Your task to perform on an android device: toggle sleep mode Image 0: 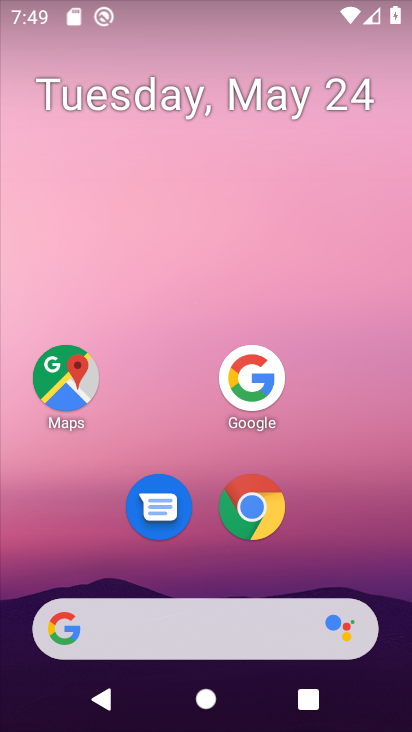
Step 0: press home button
Your task to perform on an android device: toggle sleep mode Image 1: 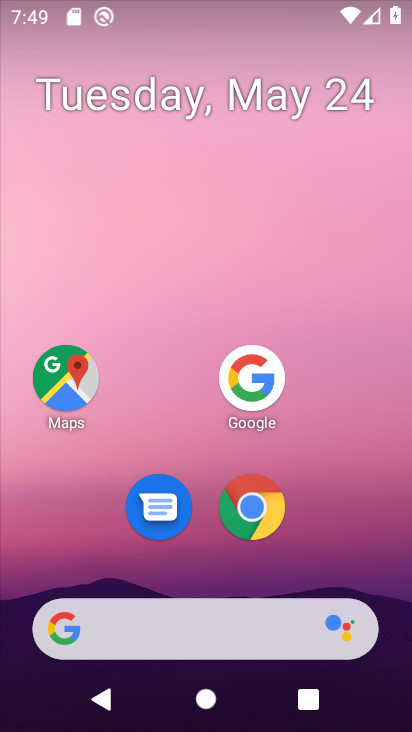
Step 1: drag from (159, 629) to (345, 113)
Your task to perform on an android device: toggle sleep mode Image 2: 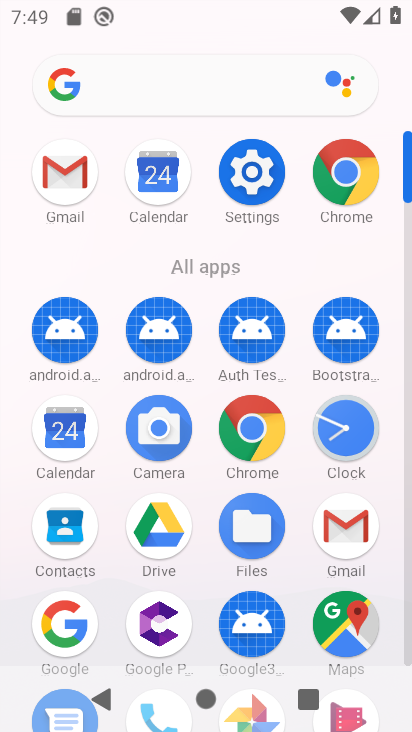
Step 2: click (255, 188)
Your task to perform on an android device: toggle sleep mode Image 3: 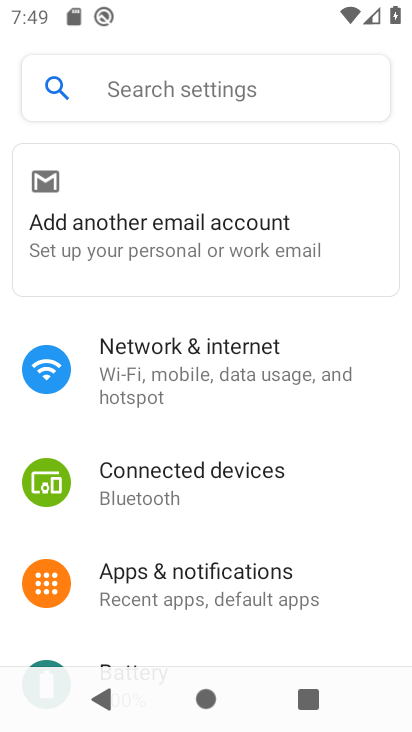
Step 3: drag from (237, 614) to (346, 296)
Your task to perform on an android device: toggle sleep mode Image 4: 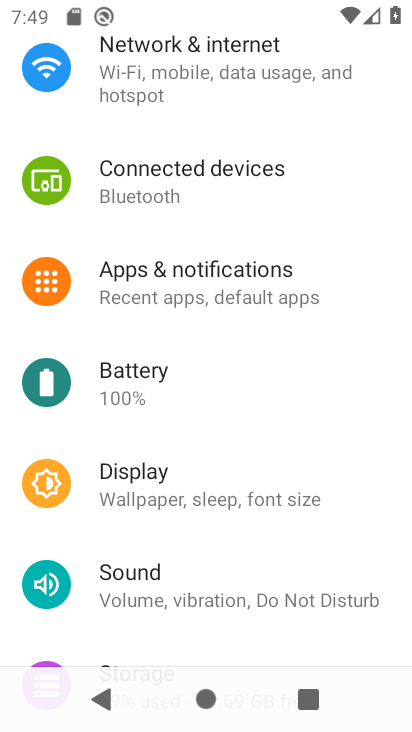
Step 4: click (185, 495)
Your task to perform on an android device: toggle sleep mode Image 5: 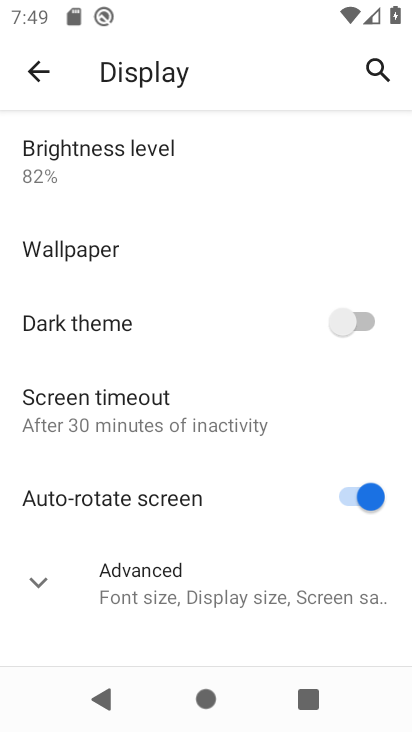
Step 5: task complete